Your task to perform on an android device: Open settings Image 0: 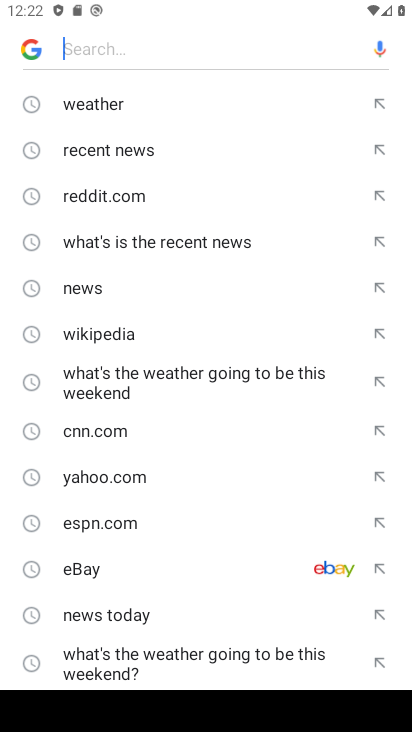
Step 0: press back button
Your task to perform on an android device: Open settings Image 1: 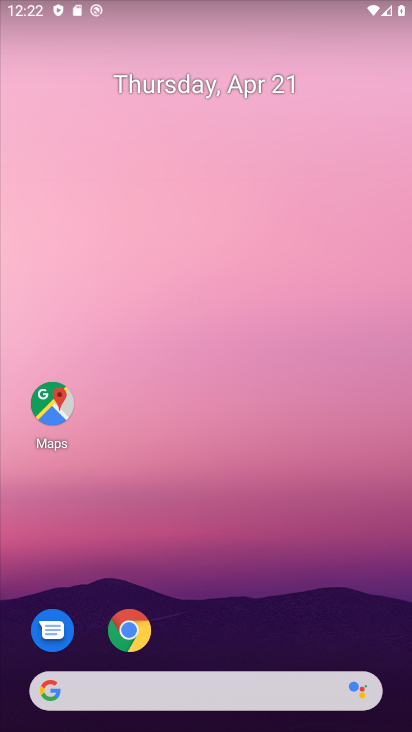
Step 1: drag from (289, 619) to (243, 163)
Your task to perform on an android device: Open settings Image 2: 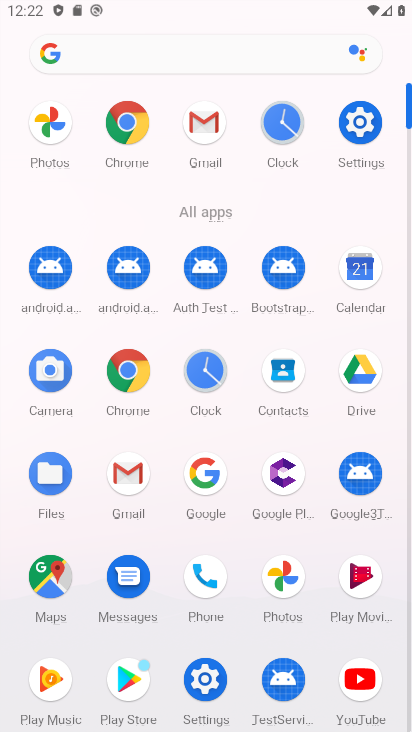
Step 2: click (352, 146)
Your task to perform on an android device: Open settings Image 3: 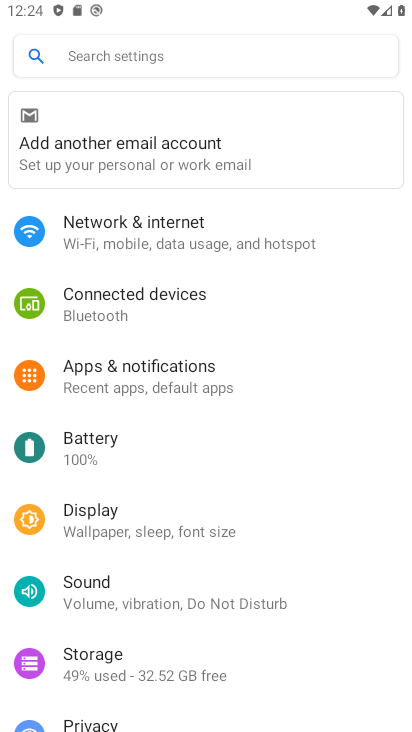
Step 3: task complete